Your task to perform on an android device: open the mobile data screen to see how much data has been used Image 0: 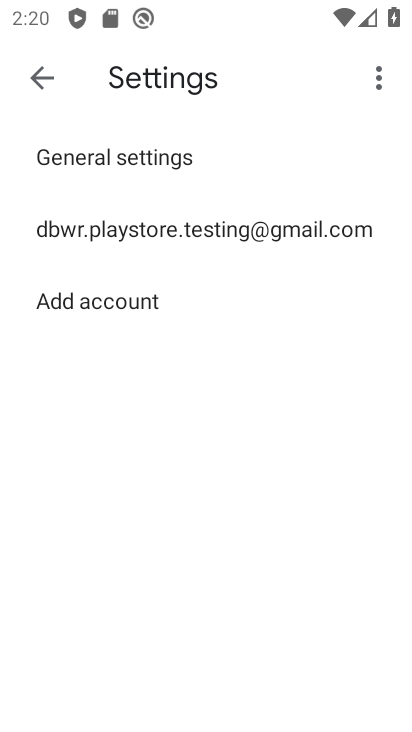
Step 0: press home button
Your task to perform on an android device: open the mobile data screen to see how much data has been used Image 1: 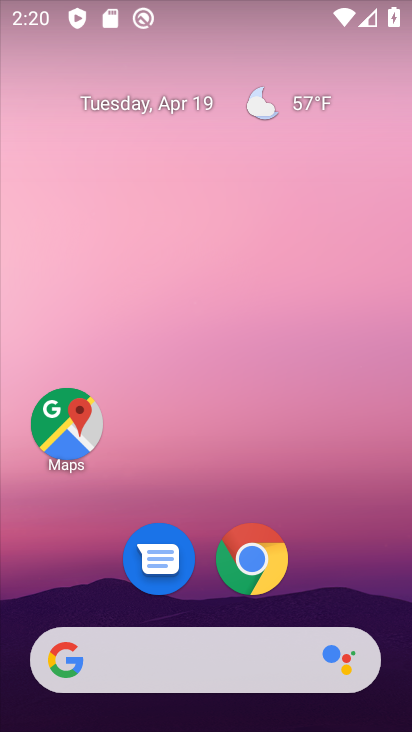
Step 1: drag from (361, 571) to (370, 142)
Your task to perform on an android device: open the mobile data screen to see how much data has been used Image 2: 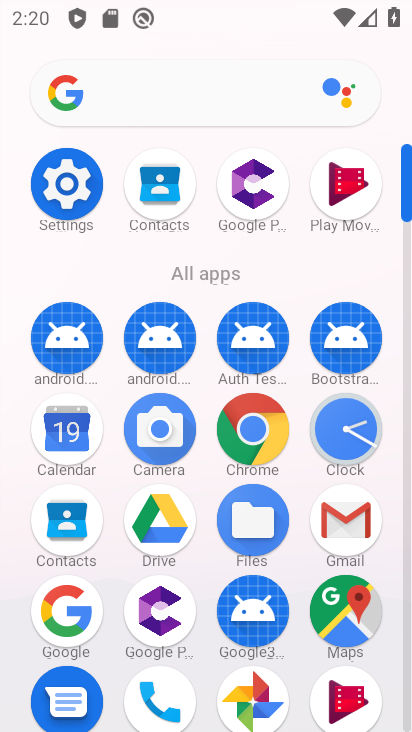
Step 2: click (68, 173)
Your task to perform on an android device: open the mobile data screen to see how much data has been used Image 3: 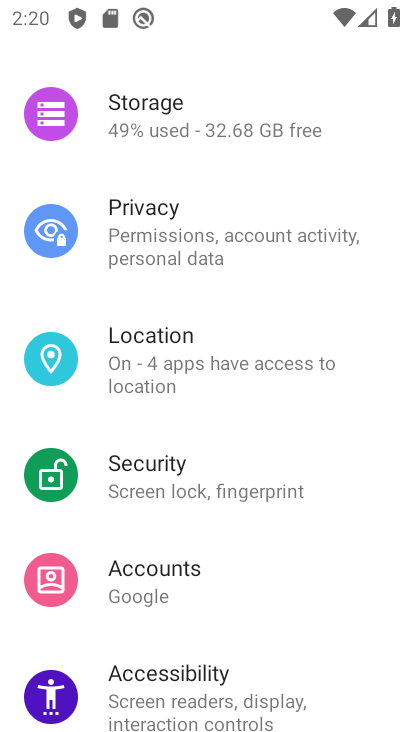
Step 3: drag from (382, 332) to (355, 504)
Your task to perform on an android device: open the mobile data screen to see how much data has been used Image 4: 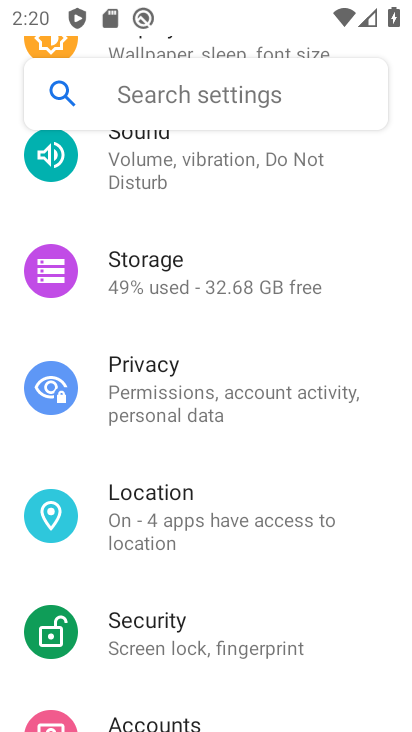
Step 4: drag from (377, 263) to (360, 520)
Your task to perform on an android device: open the mobile data screen to see how much data has been used Image 5: 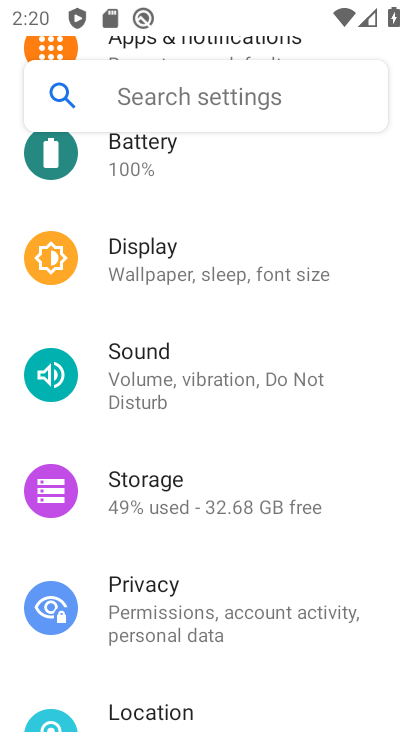
Step 5: drag from (373, 267) to (383, 481)
Your task to perform on an android device: open the mobile data screen to see how much data has been used Image 6: 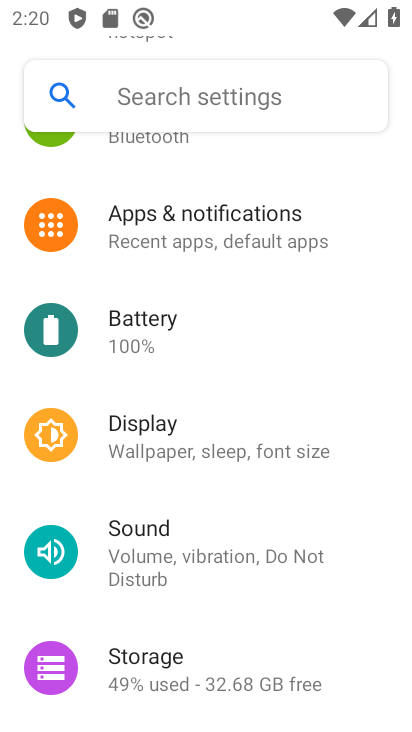
Step 6: drag from (387, 280) to (374, 457)
Your task to perform on an android device: open the mobile data screen to see how much data has been used Image 7: 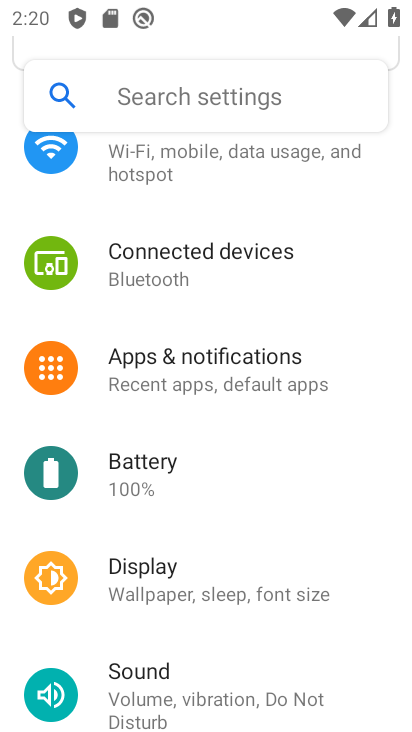
Step 7: drag from (373, 274) to (373, 468)
Your task to perform on an android device: open the mobile data screen to see how much data has been used Image 8: 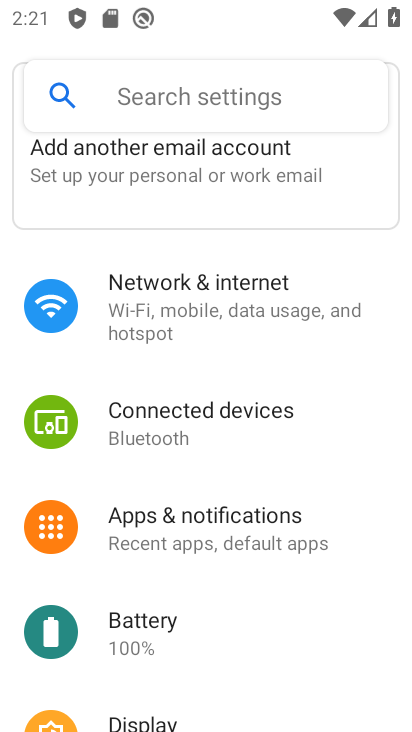
Step 8: drag from (386, 306) to (342, 505)
Your task to perform on an android device: open the mobile data screen to see how much data has been used Image 9: 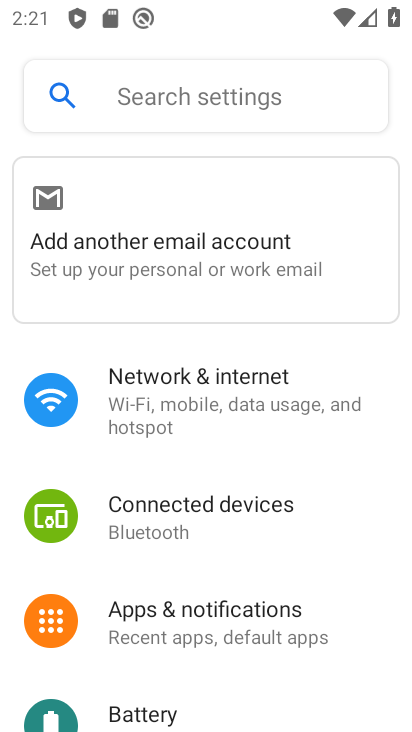
Step 9: click (240, 392)
Your task to perform on an android device: open the mobile data screen to see how much data has been used Image 10: 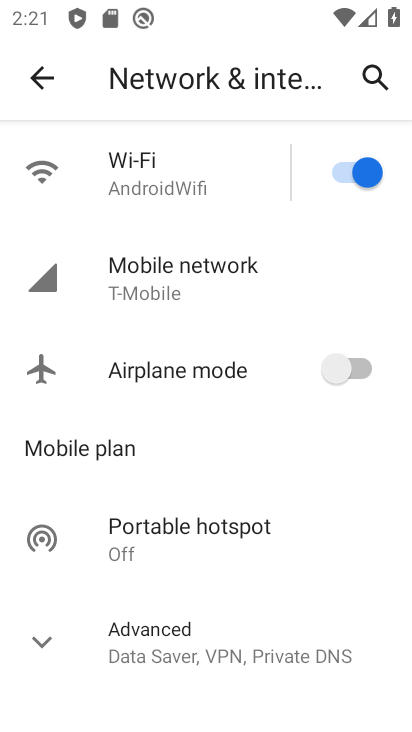
Step 10: click (178, 266)
Your task to perform on an android device: open the mobile data screen to see how much data has been used Image 11: 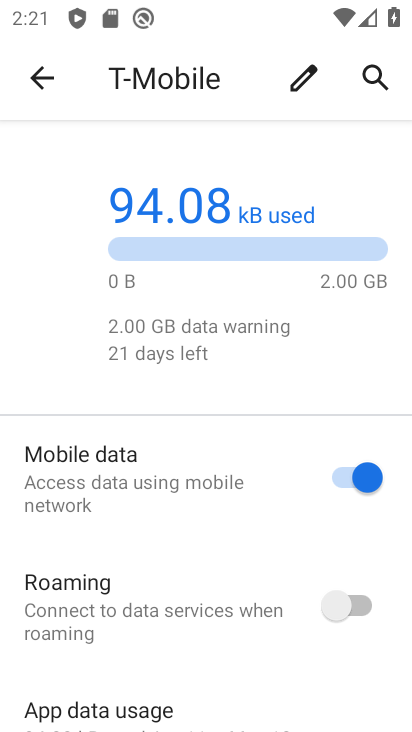
Step 11: drag from (236, 531) to (280, 233)
Your task to perform on an android device: open the mobile data screen to see how much data has been used Image 12: 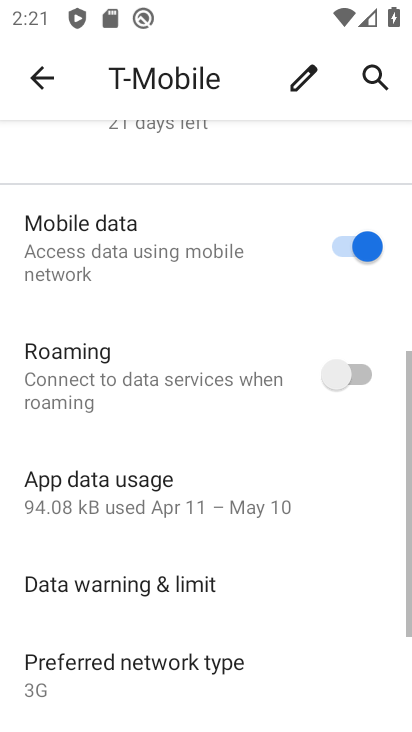
Step 12: click (124, 512)
Your task to perform on an android device: open the mobile data screen to see how much data has been used Image 13: 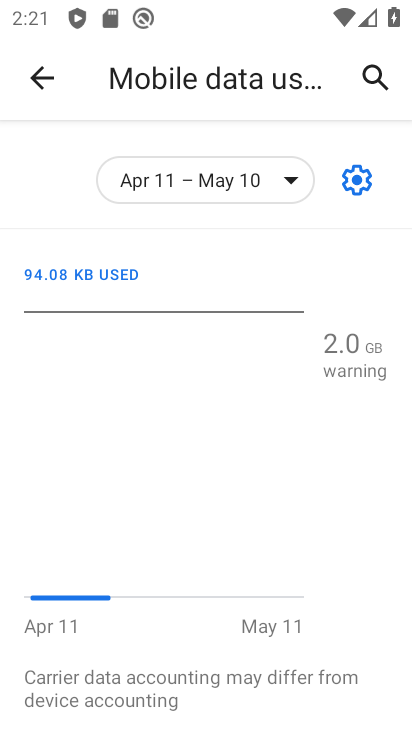
Step 13: task complete